Your task to perform on an android device: Open Yahoo.com Image 0: 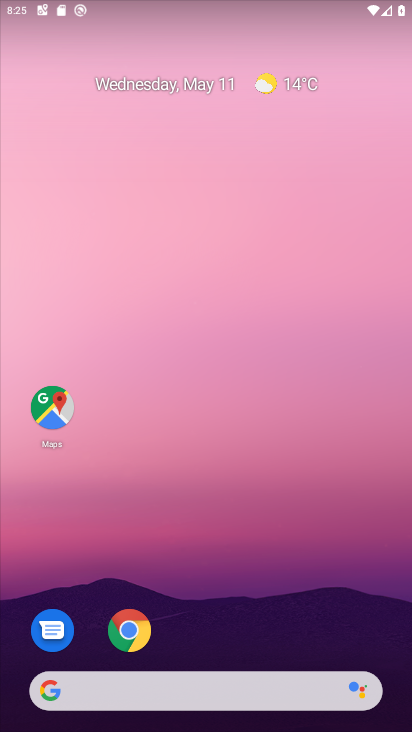
Step 0: click (120, 636)
Your task to perform on an android device: Open Yahoo.com Image 1: 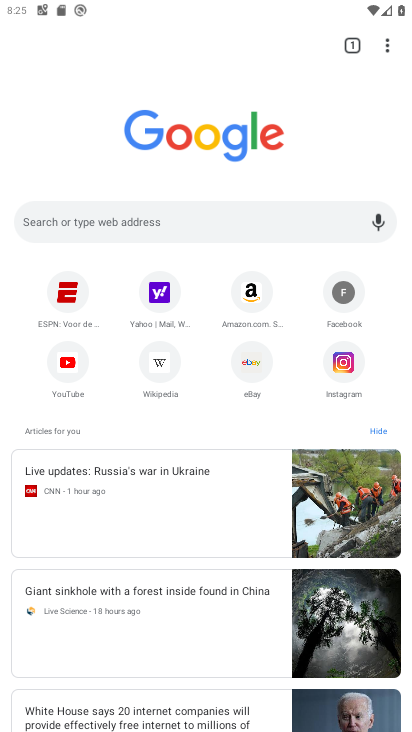
Step 1: click (151, 293)
Your task to perform on an android device: Open Yahoo.com Image 2: 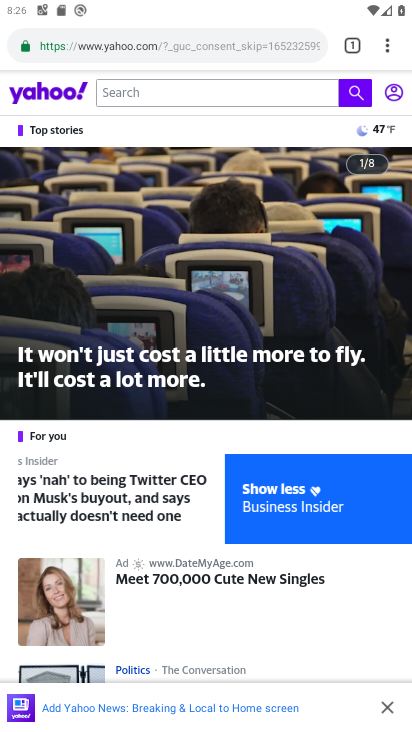
Step 2: task complete